Your task to perform on an android device: open chrome and create a bookmark for the current page Image 0: 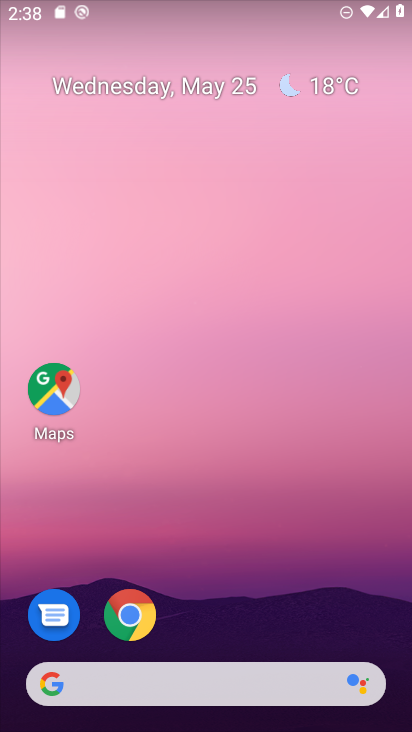
Step 0: click (130, 605)
Your task to perform on an android device: open chrome and create a bookmark for the current page Image 1: 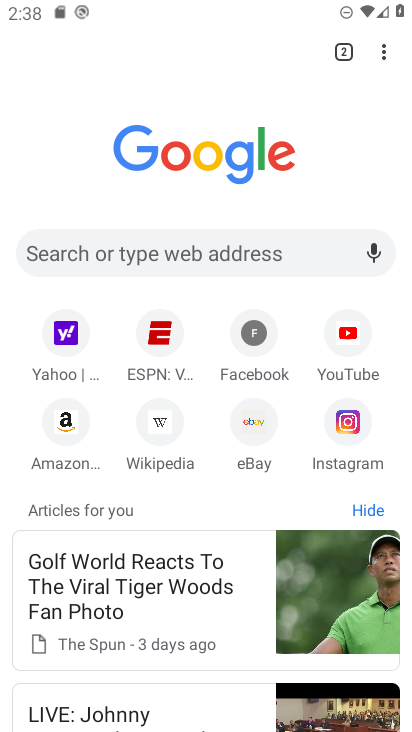
Step 1: click (384, 47)
Your task to perform on an android device: open chrome and create a bookmark for the current page Image 2: 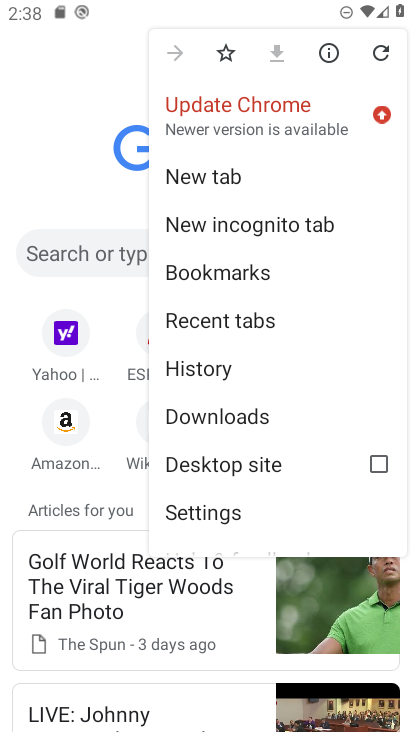
Step 2: click (224, 53)
Your task to perform on an android device: open chrome and create a bookmark for the current page Image 3: 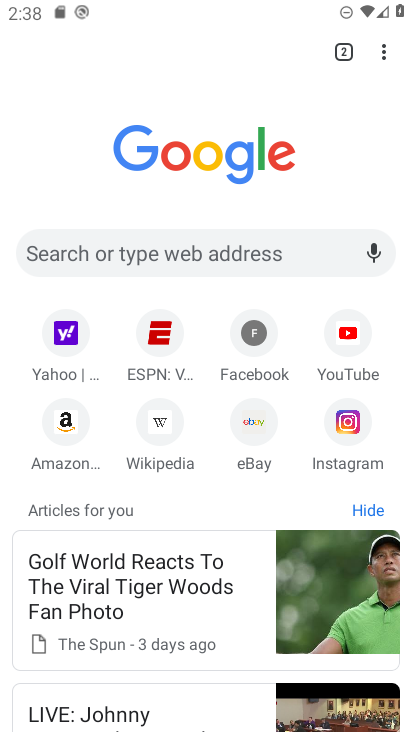
Step 3: task complete